Your task to perform on an android device: Open Google Maps Image 0: 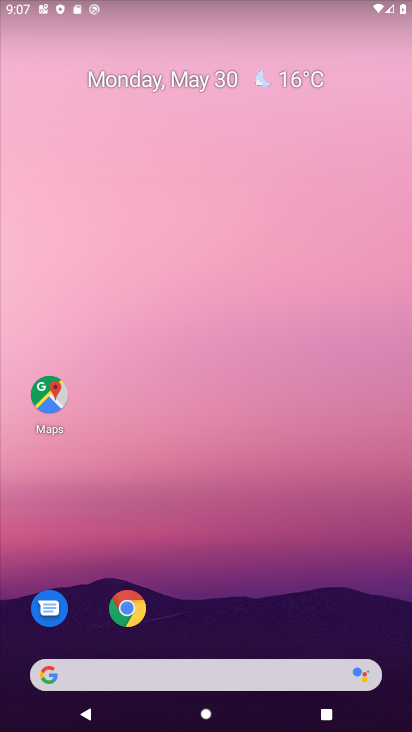
Step 0: click (60, 391)
Your task to perform on an android device: Open Google Maps Image 1: 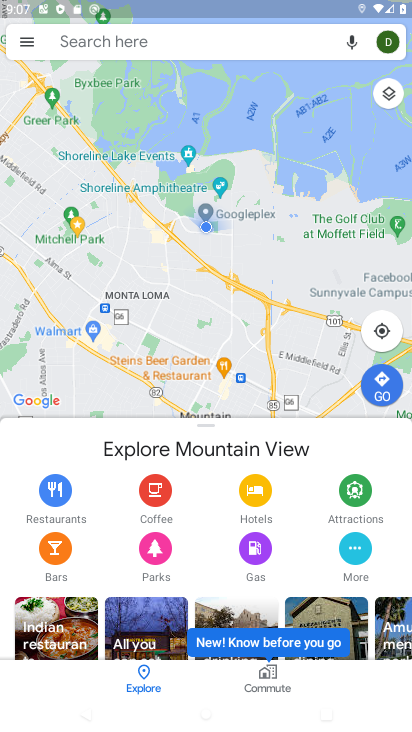
Step 1: task complete